Your task to perform on an android device: Open calendar and show me the fourth week of next month Image 0: 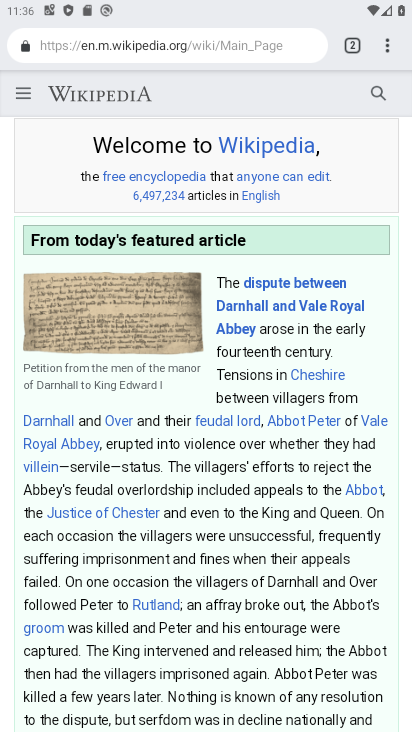
Step 0: press home button
Your task to perform on an android device: Open calendar and show me the fourth week of next month Image 1: 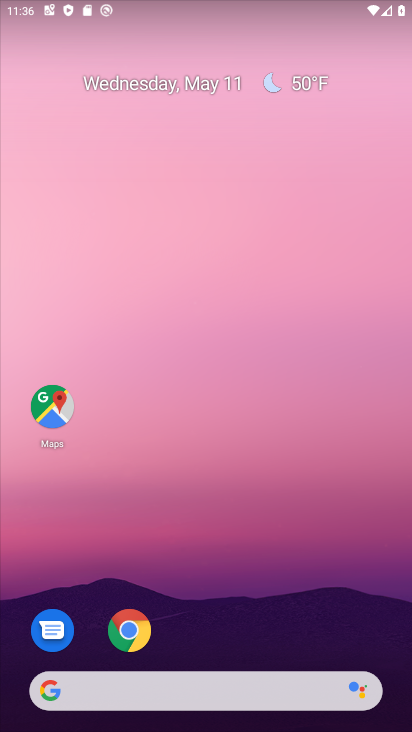
Step 1: drag from (195, 728) to (199, 53)
Your task to perform on an android device: Open calendar and show me the fourth week of next month Image 2: 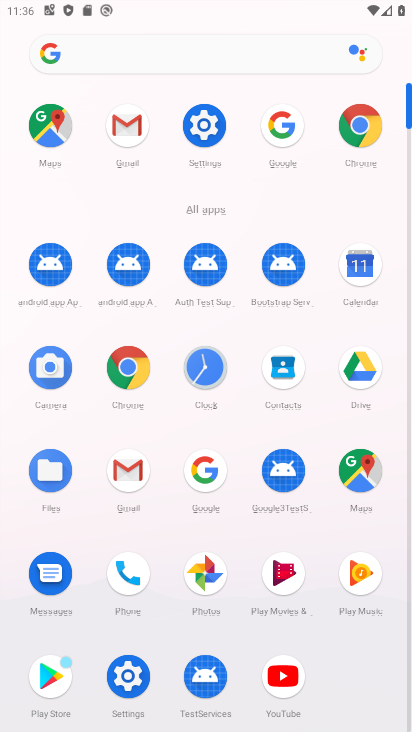
Step 2: click (360, 269)
Your task to perform on an android device: Open calendar and show me the fourth week of next month Image 3: 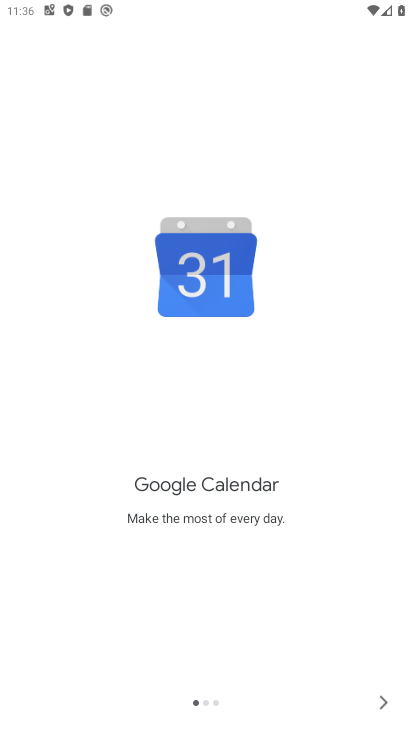
Step 3: click (384, 701)
Your task to perform on an android device: Open calendar and show me the fourth week of next month Image 4: 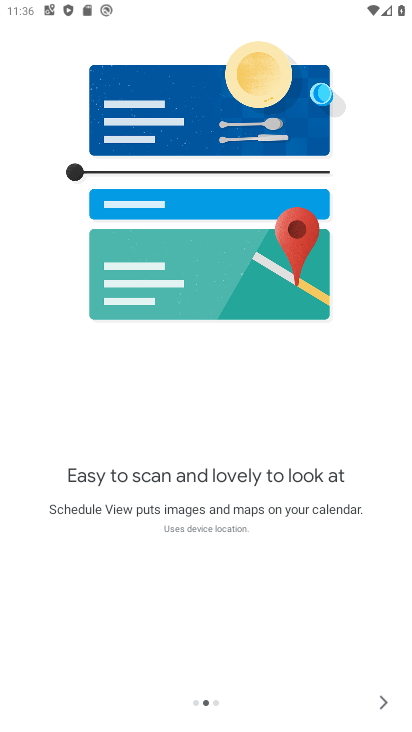
Step 4: click (384, 701)
Your task to perform on an android device: Open calendar and show me the fourth week of next month Image 5: 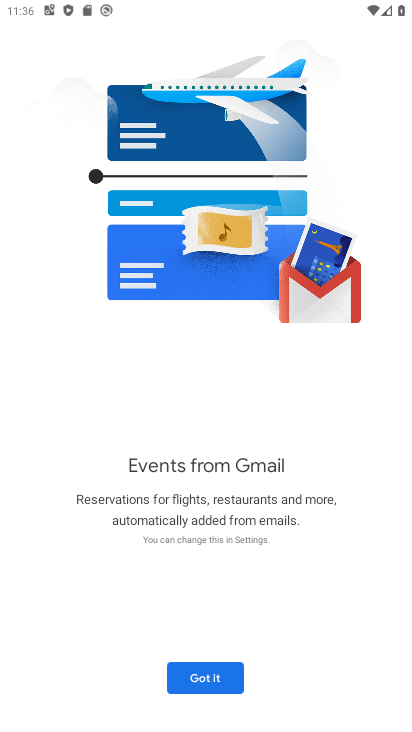
Step 5: click (212, 675)
Your task to perform on an android device: Open calendar and show me the fourth week of next month Image 6: 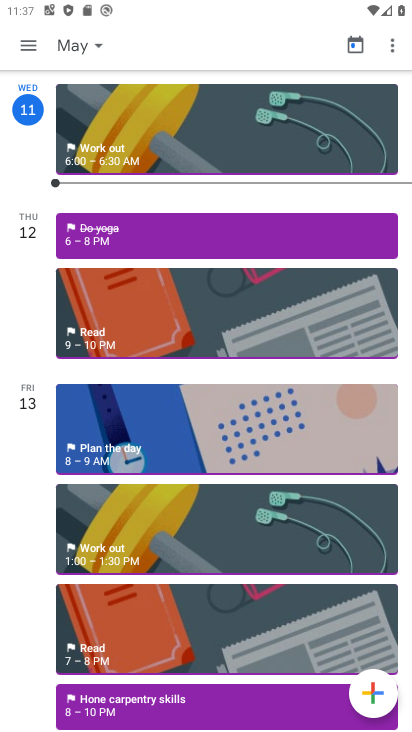
Step 6: click (81, 47)
Your task to perform on an android device: Open calendar and show me the fourth week of next month Image 7: 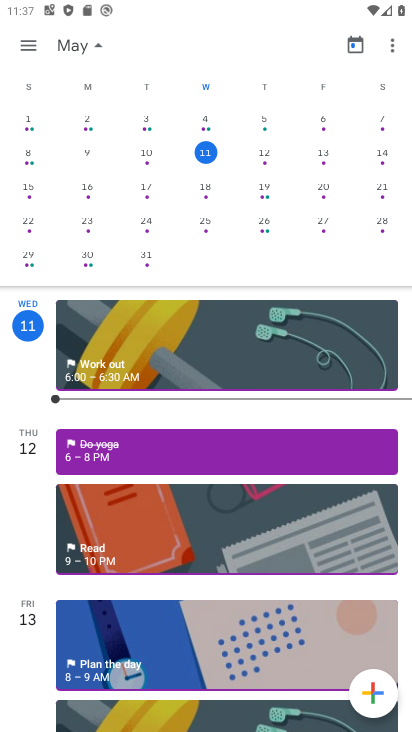
Step 7: drag from (355, 177) to (0, 146)
Your task to perform on an android device: Open calendar and show me the fourth week of next month Image 8: 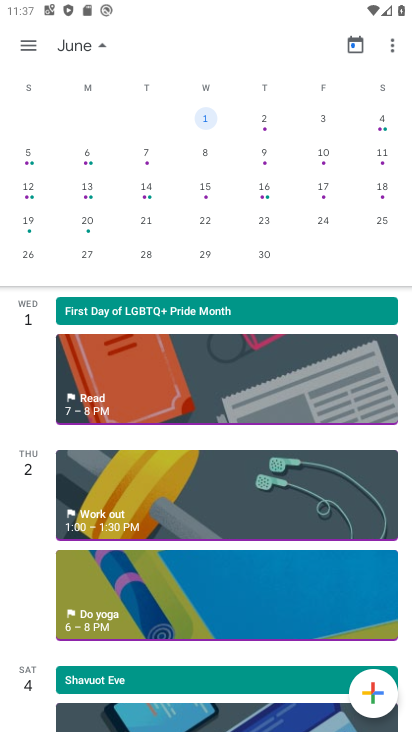
Step 8: click (85, 250)
Your task to perform on an android device: Open calendar and show me the fourth week of next month Image 9: 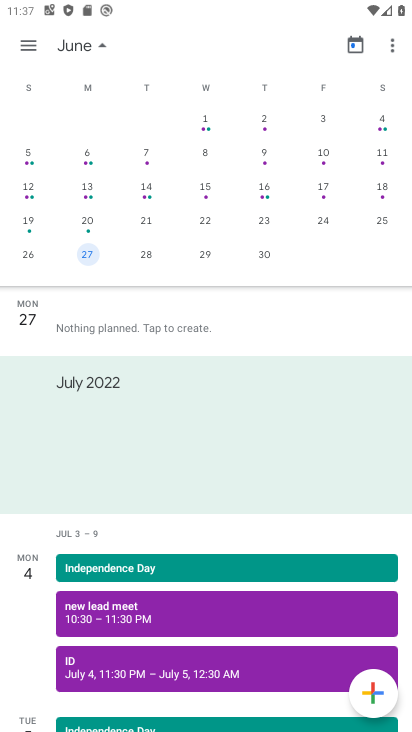
Step 9: click (27, 43)
Your task to perform on an android device: Open calendar and show me the fourth week of next month Image 10: 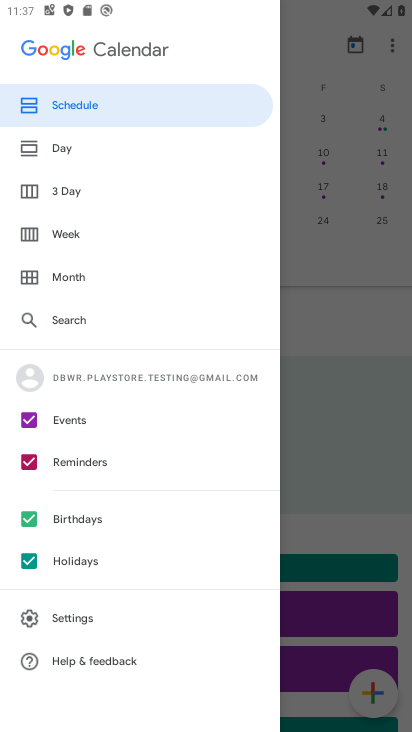
Step 10: click (52, 230)
Your task to perform on an android device: Open calendar and show me the fourth week of next month Image 11: 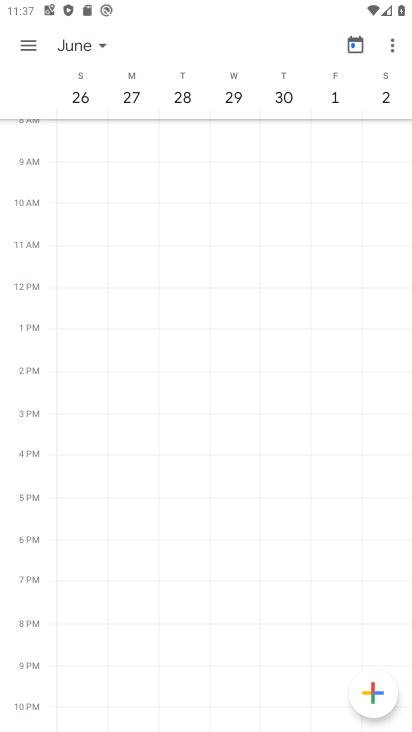
Step 11: task complete